Your task to perform on an android device: When is my next appointment? Image 0: 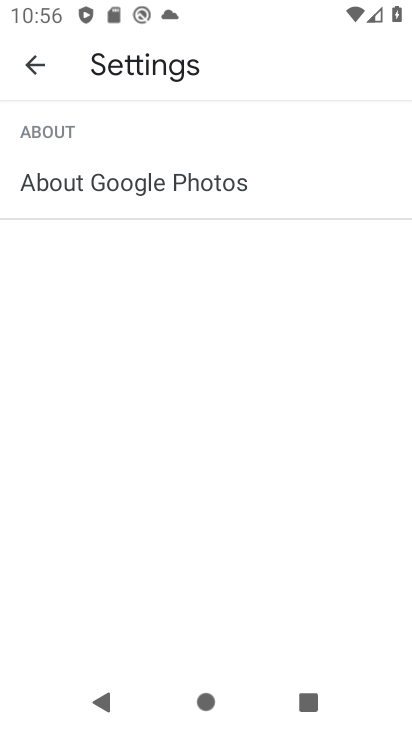
Step 0: press home button
Your task to perform on an android device: When is my next appointment? Image 1: 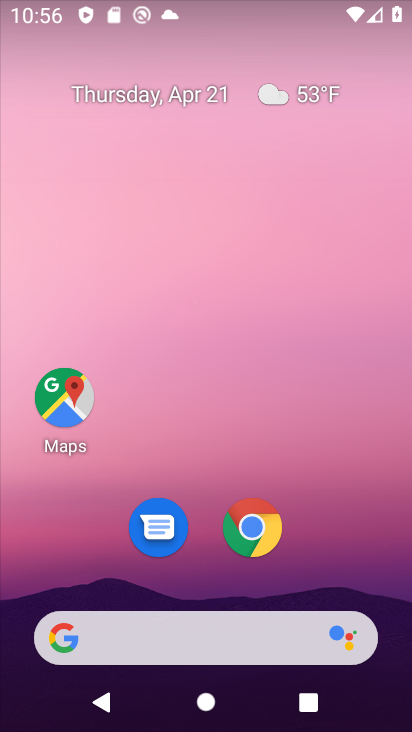
Step 1: drag from (353, 557) to (357, 130)
Your task to perform on an android device: When is my next appointment? Image 2: 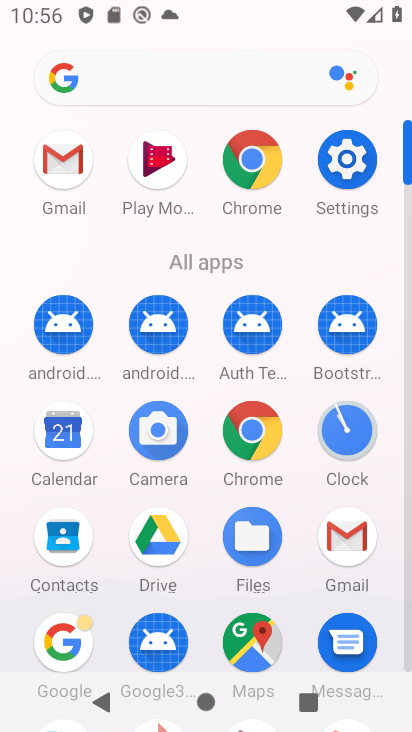
Step 2: click (64, 435)
Your task to perform on an android device: When is my next appointment? Image 3: 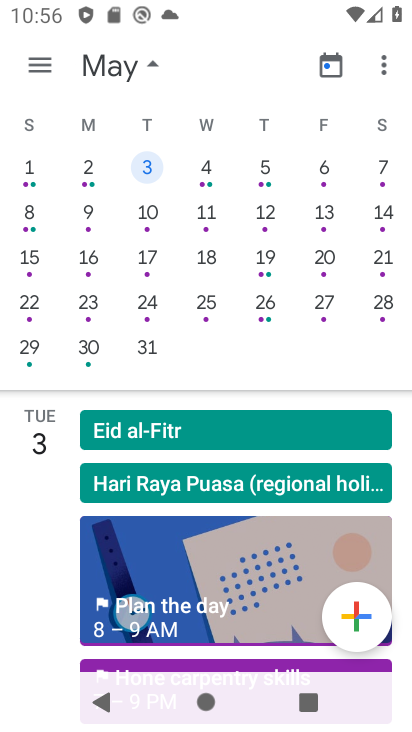
Step 3: click (37, 68)
Your task to perform on an android device: When is my next appointment? Image 4: 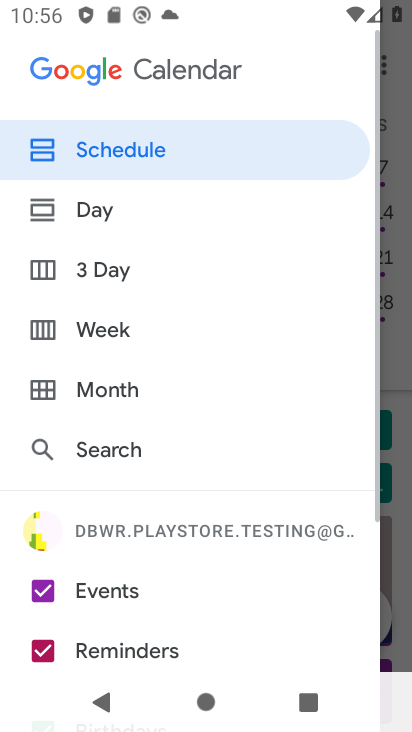
Step 4: drag from (226, 571) to (239, 267)
Your task to perform on an android device: When is my next appointment? Image 5: 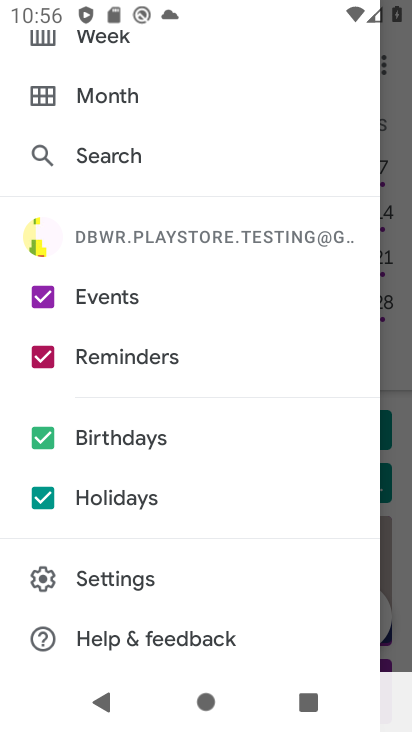
Step 5: click (134, 354)
Your task to perform on an android device: When is my next appointment? Image 6: 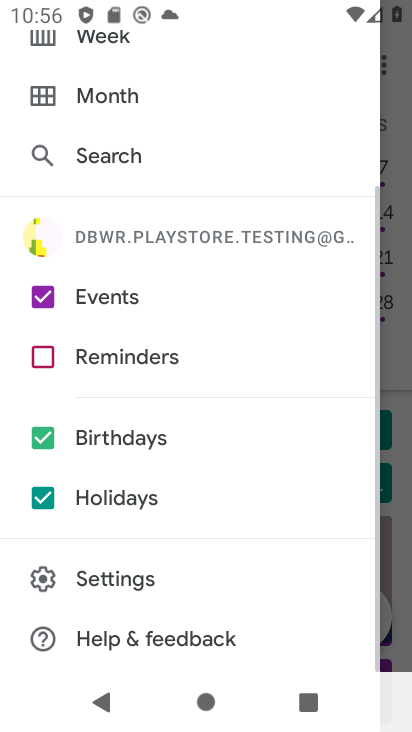
Step 6: click (42, 439)
Your task to perform on an android device: When is my next appointment? Image 7: 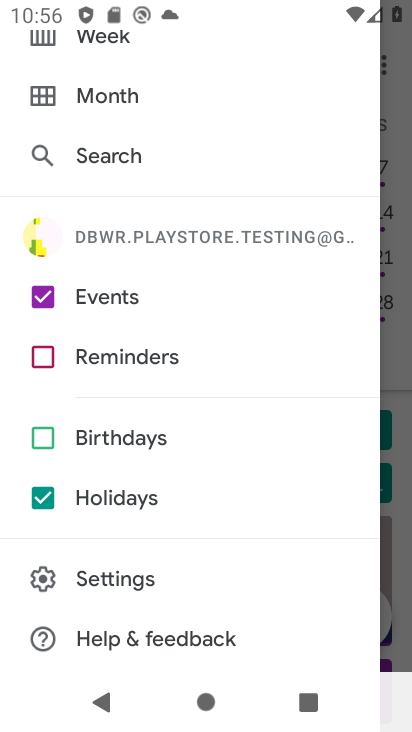
Step 7: click (25, 493)
Your task to perform on an android device: When is my next appointment? Image 8: 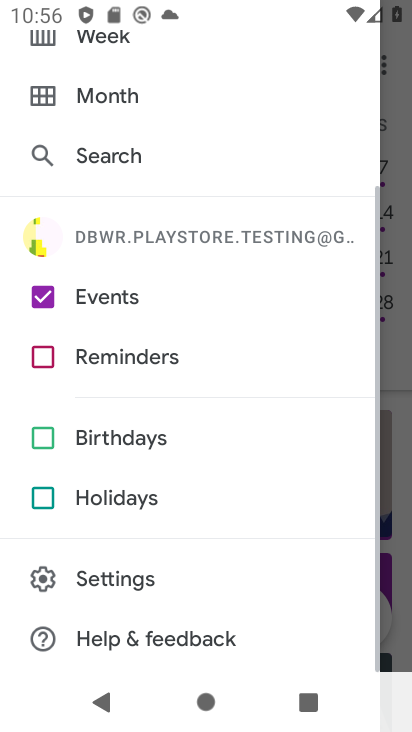
Step 8: drag from (275, 187) to (271, 452)
Your task to perform on an android device: When is my next appointment? Image 9: 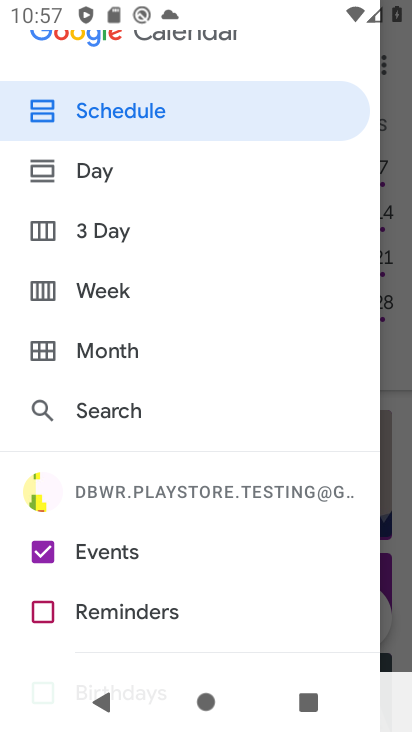
Step 9: click (123, 347)
Your task to perform on an android device: When is my next appointment? Image 10: 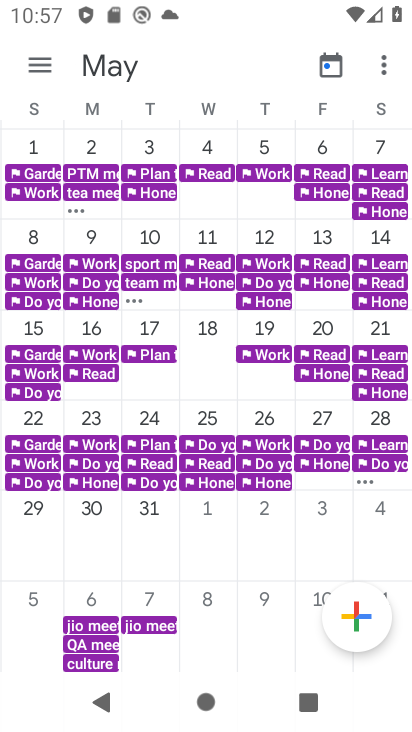
Step 10: drag from (212, 189) to (216, 439)
Your task to perform on an android device: When is my next appointment? Image 11: 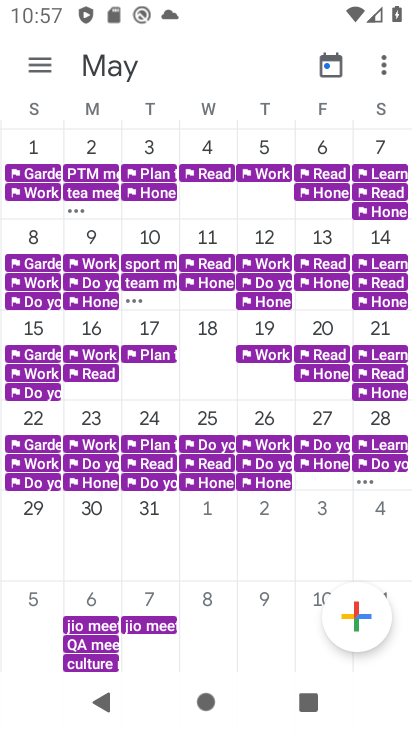
Step 11: drag from (21, 209) to (405, 209)
Your task to perform on an android device: When is my next appointment? Image 12: 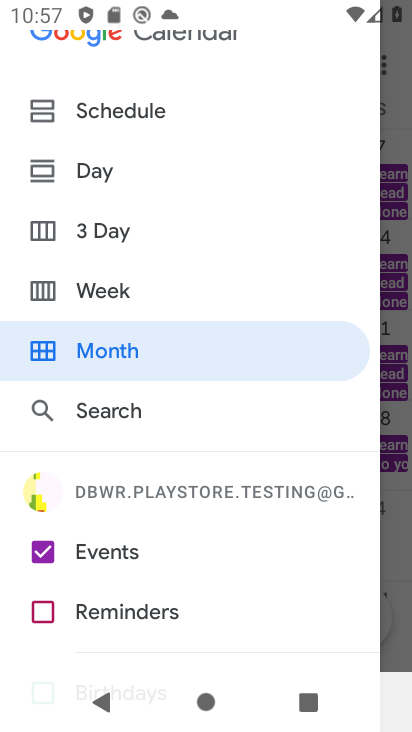
Step 12: click (80, 103)
Your task to perform on an android device: When is my next appointment? Image 13: 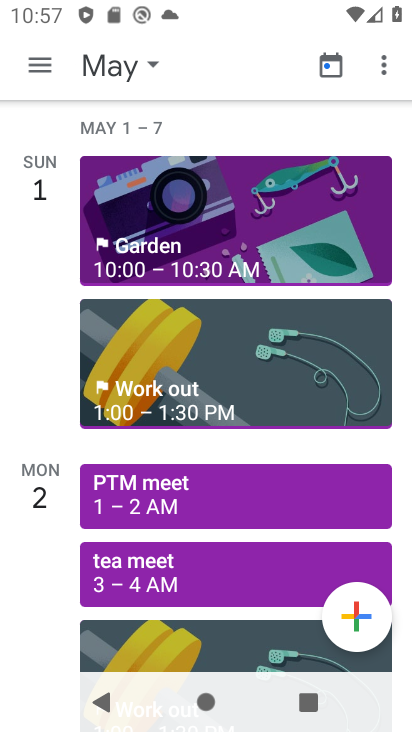
Step 13: click (160, 59)
Your task to perform on an android device: When is my next appointment? Image 14: 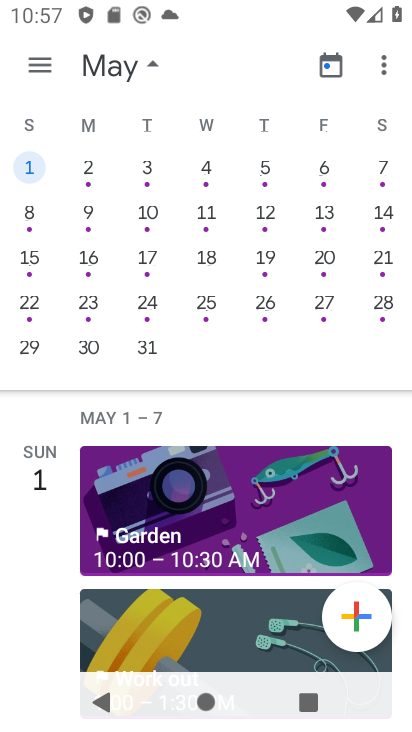
Step 14: drag from (38, 231) to (394, 254)
Your task to perform on an android device: When is my next appointment? Image 15: 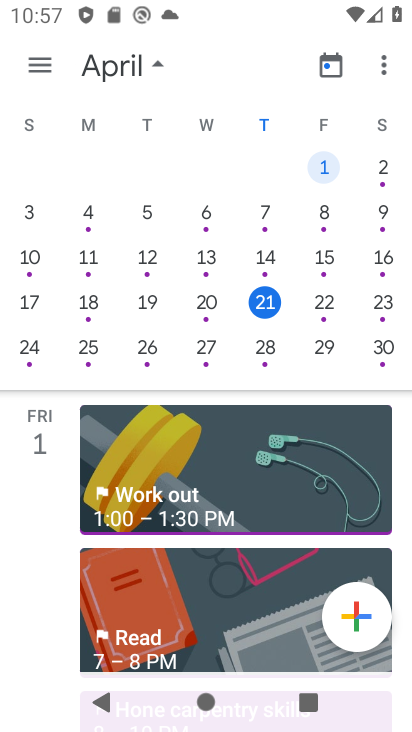
Step 15: click (35, 167)
Your task to perform on an android device: When is my next appointment? Image 16: 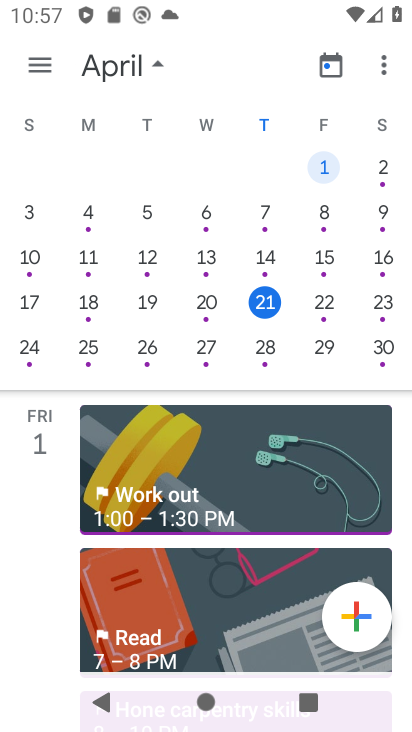
Step 16: click (323, 304)
Your task to perform on an android device: When is my next appointment? Image 17: 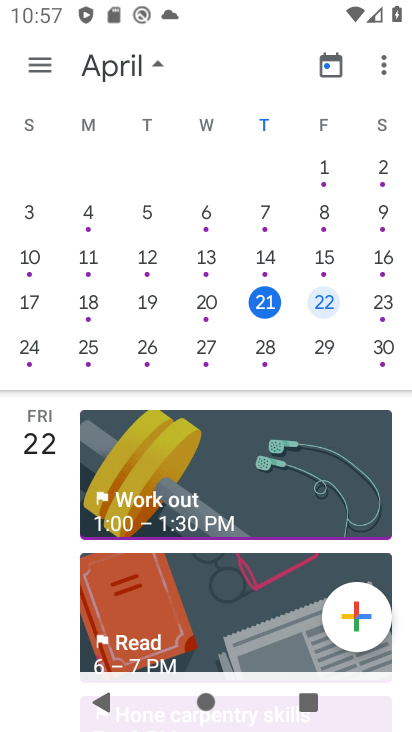
Step 17: drag from (230, 574) to (221, 217)
Your task to perform on an android device: When is my next appointment? Image 18: 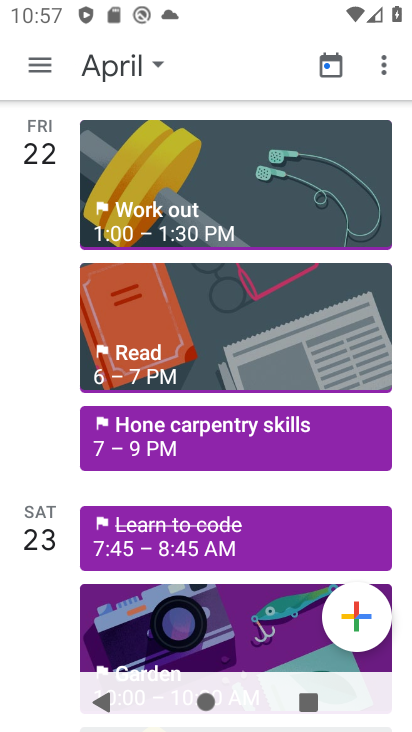
Step 18: click (222, 336)
Your task to perform on an android device: When is my next appointment? Image 19: 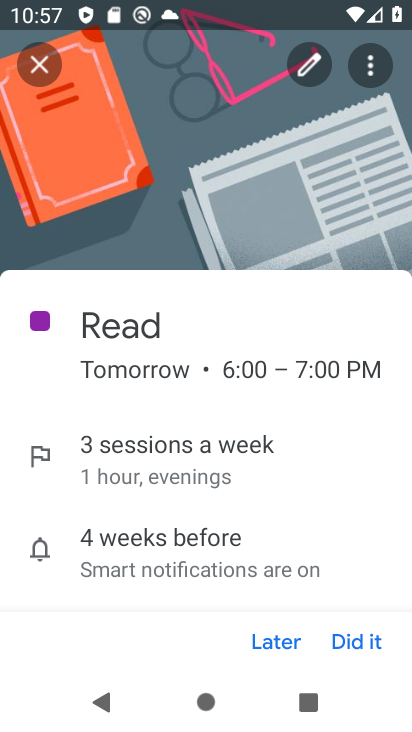
Step 19: task complete